Your task to perform on an android device: Go to Wikipedia Image 0: 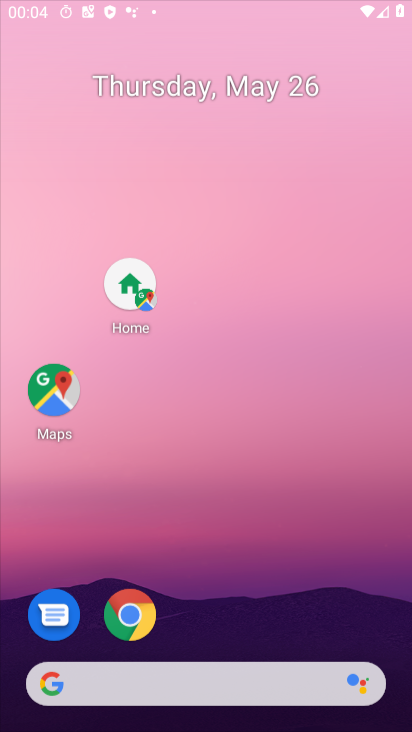
Step 0: press home button
Your task to perform on an android device: Go to Wikipedia Image 1: 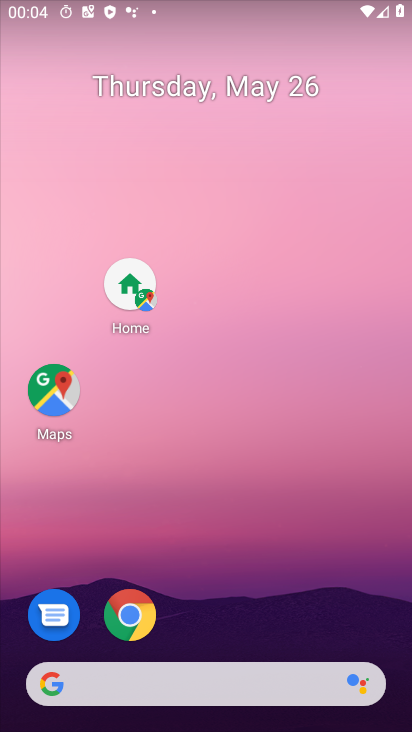
Step 1: click (56, 690)
Your task to perform on an android device: Go to Wikipedia Image 2: 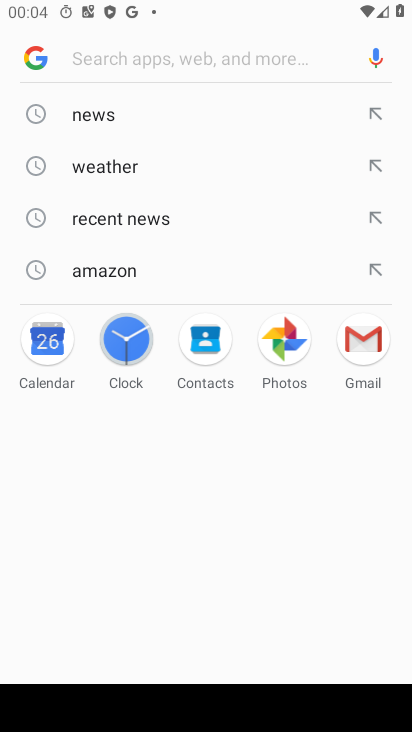
Step 2: type "Wikipedia"
Your task to perform on an android device: Go to Wikipedia Image 3: 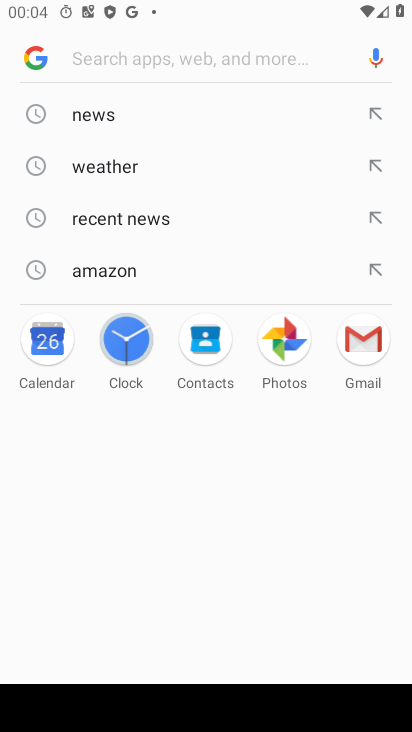
Step 3: click (232, 54)
Your task to perform on an android device: Go to Wikipedia Image 4: 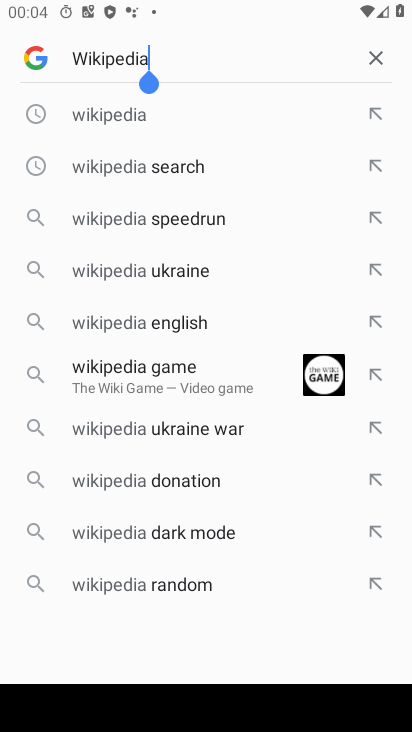
Step 4: click (103, 113)
Your task to perform on an android device: Go to Wikipedia Image 5: 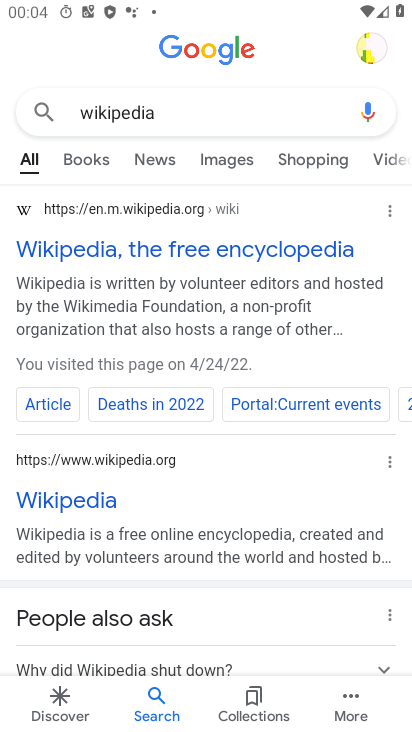
Step 5: click (156, 253)
Your task to perform on an android device: Go to Wikipedia Image 6: 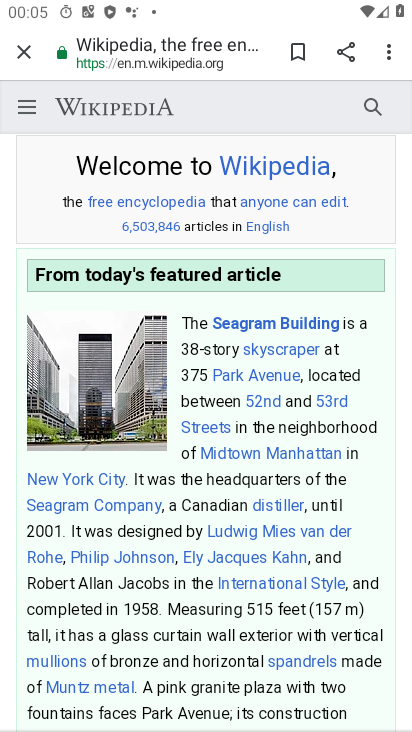
Step 6: press home button
Your task to perform on an android device: Go to Wikipedia Image 7: 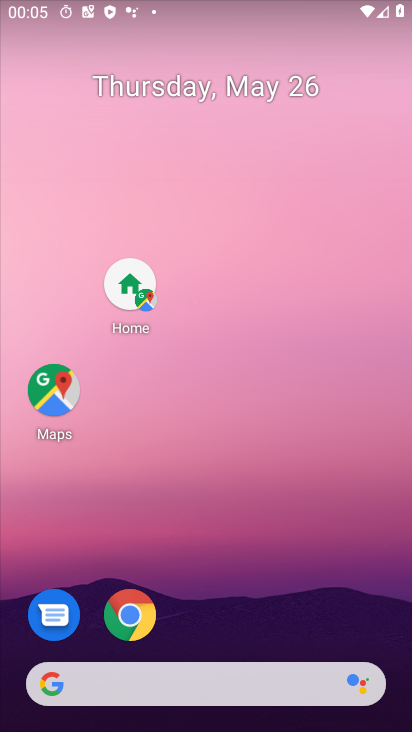
Step 7: press home button
Your task to perform on an android device: Go to Wikipedia Image 8: 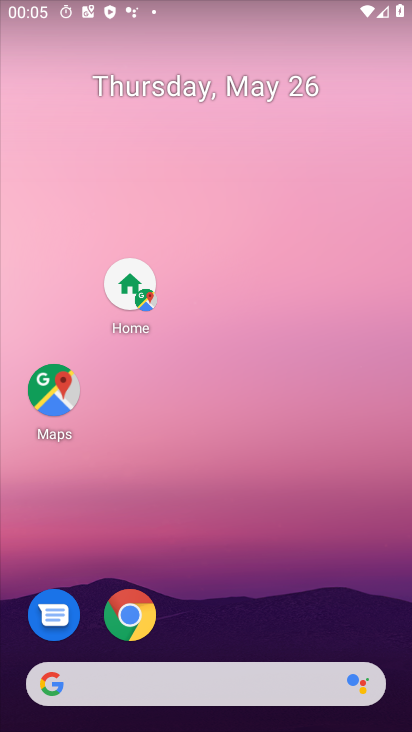
Step 8: click (53, 687)
Your task to perform on an android device: Go to Wikipedia Image 9: 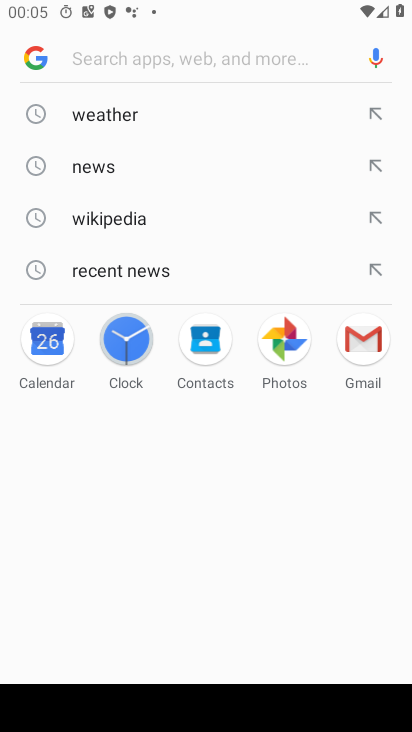
Step 9: click (130, 219)
Your task to perform on an android device: Go to Wikipedia Image 10: 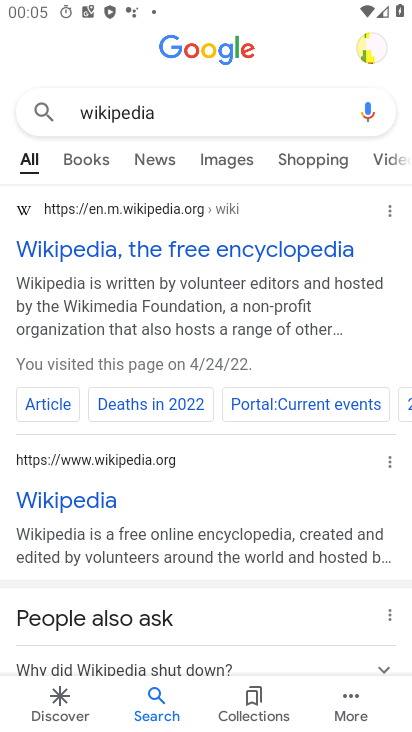
Step 10: click (116, 251)
Your task to perform on an android device: Go to Wikipedia Image 11: 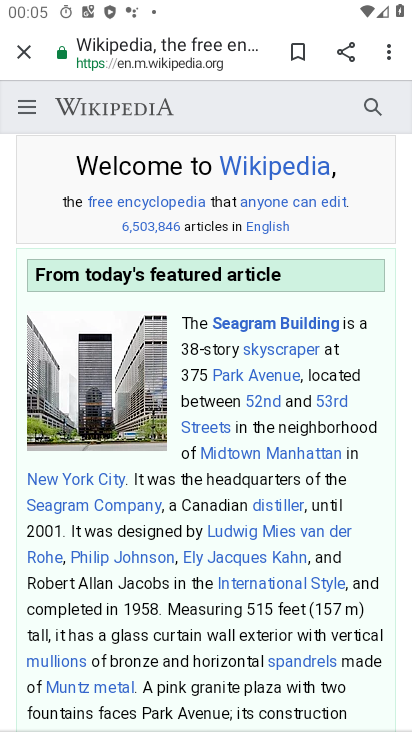
Step 11: task complete